Your task to perform on an android device: turn off javascript in the chrome app Image 0: 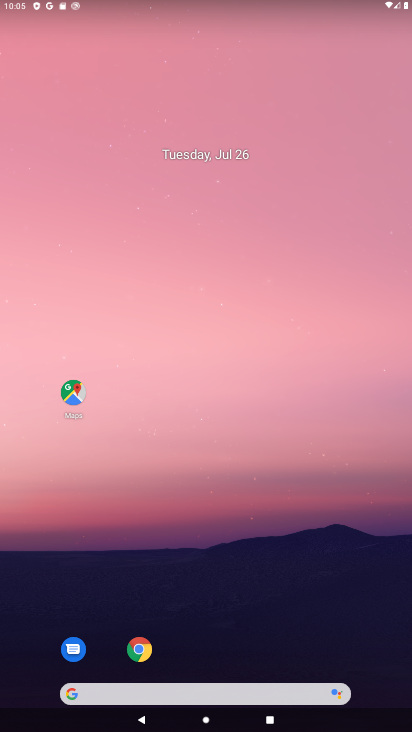
Step 0: click (141, 650)
Your task to perform on an android device: turn off javascript in the chrome app Image 1: 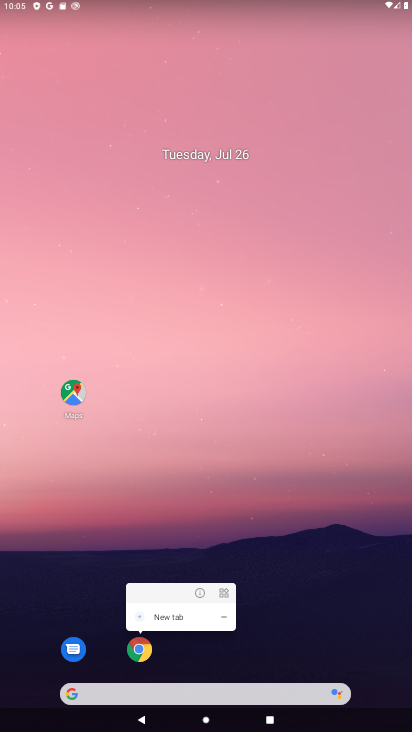
Step 1: click (141, 650)
Your task to perform on an android device: turn off javascript in the chrome app Image 2: 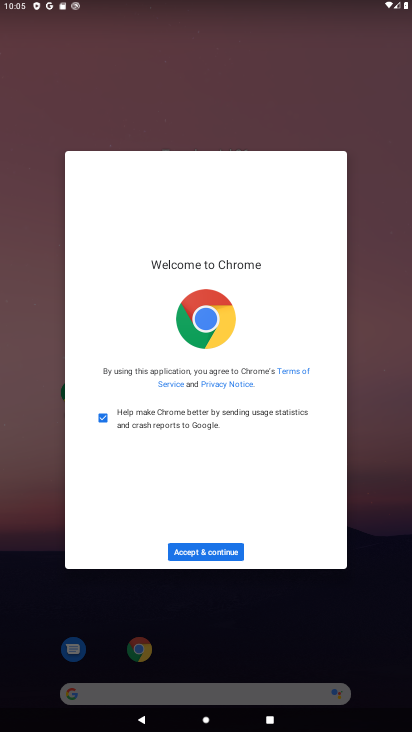
Step 2: click (210, 552)
Your task to perform on an android device: turn off javascript in the chrome app Image 3: 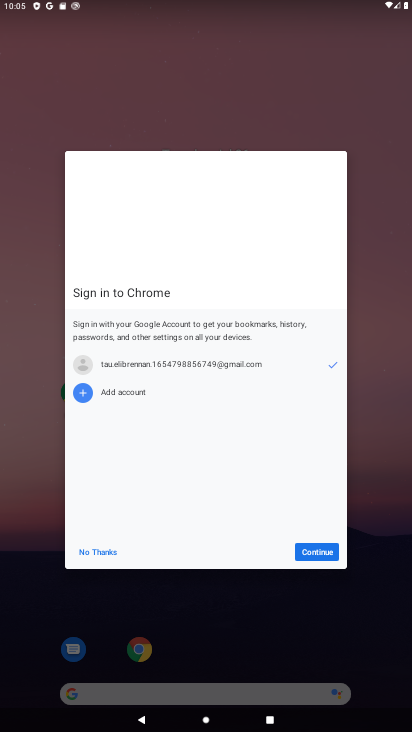
Step 3: click (330, 550)
Your task to perform on an android device: turn off javascript in the chrome app Image 4: 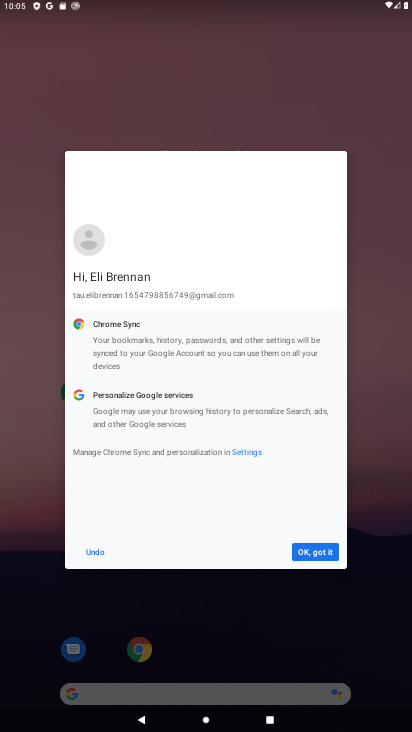
Step 4: click (331, 549)
Your task to perform on an android device: turn off javascript in the chrome app Image 5: 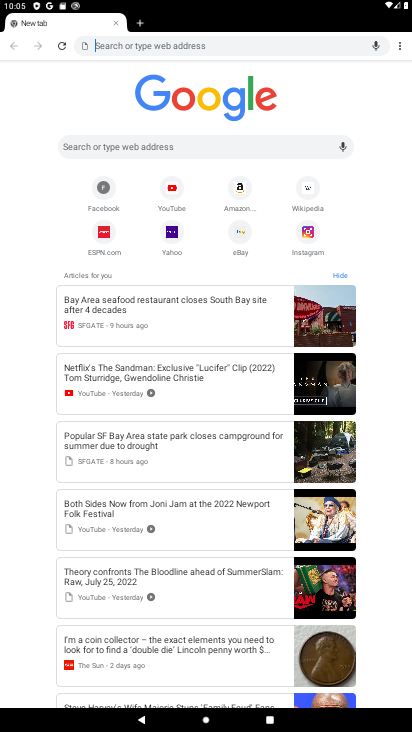
Step 5: click (401, 43)
Your task to perform on an android device: turn off javascript in the chrome app Image 6: 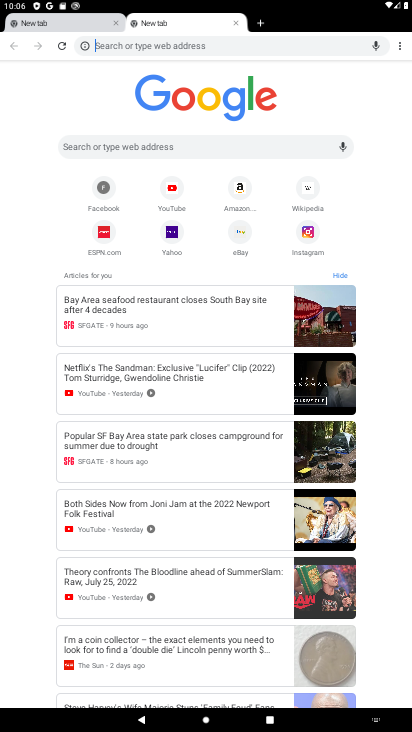
Step 6: click (401, 43)
Your task to perform on an android device: turn off javascript in the chrome app Image 7: 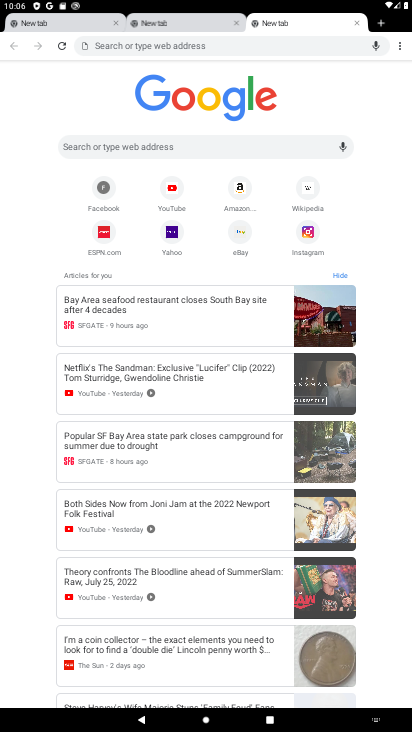
Step 7: click (398, 44)
Your task to perform on an android device: turn off javascript in the chrome app Image 8: 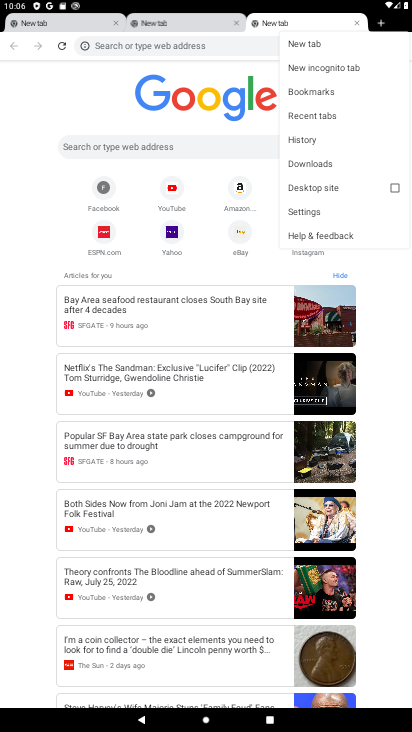
Step 8: click (312, 212)
Your task to perform on an android device: turn off javascript in the chrome app Image 9: 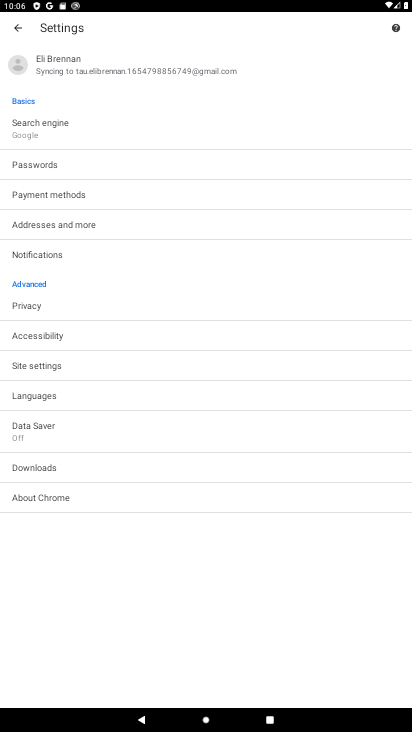
Step 9: click (38, 371)
Your task to perform on an android device: turn off javascript in the chrome app Image 10: 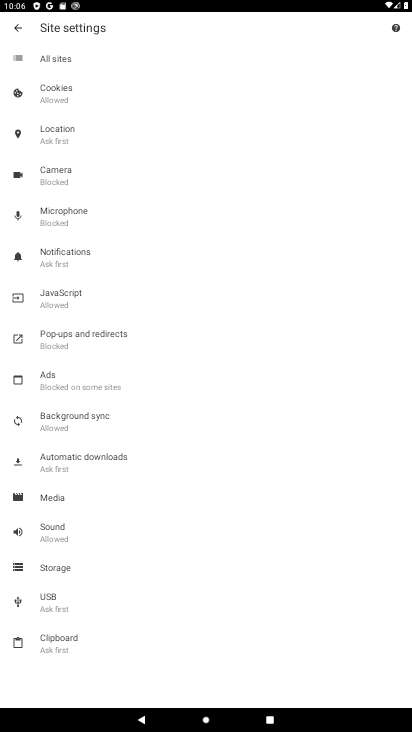
Step 10: click (63, 296)
Your task to perform on an android device: turn off javascript in the chrome app Image 11: 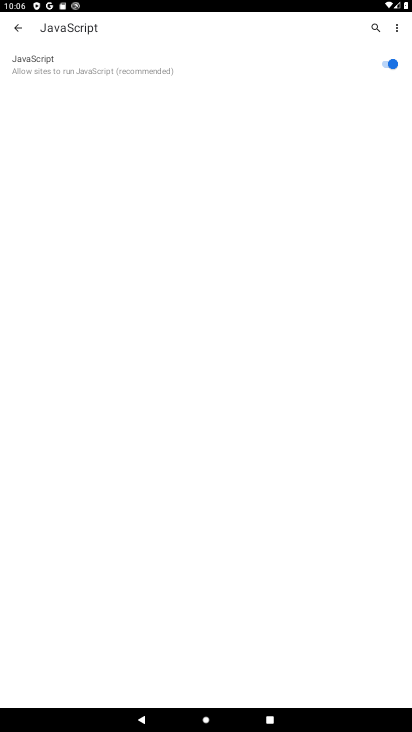
Step 11: click (386, 64)
Your task to perform on an android device: turn off javascript in the chrome app Image 12: 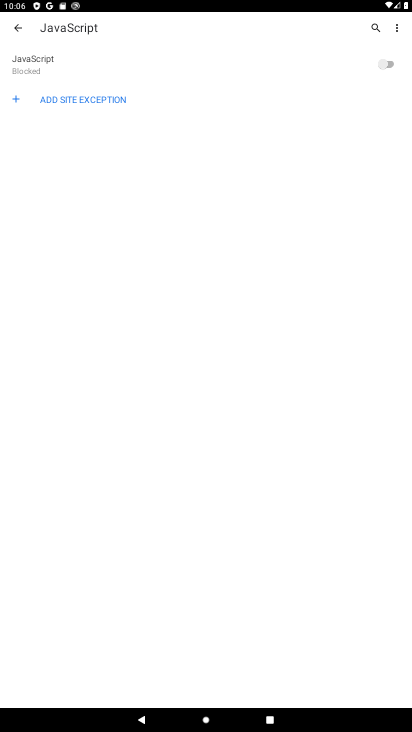
Step 12: task complete